Your task to perform on an android device: Open accessibility settings Image 0: 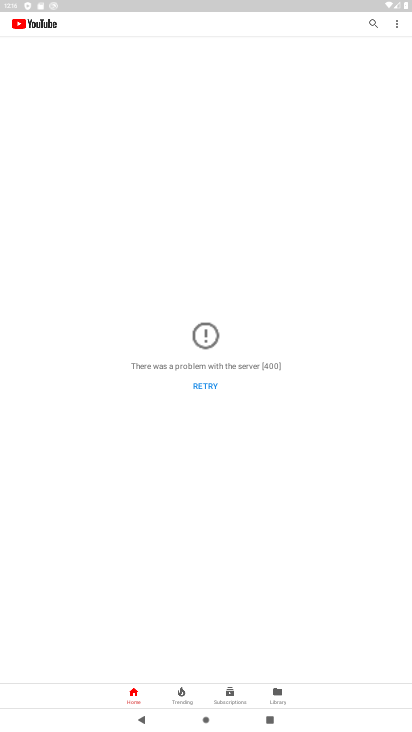
Step 0: drag from (233, 650) to (399, 617)
Your task to perform on an android device: Open accessibility settings Image 1: 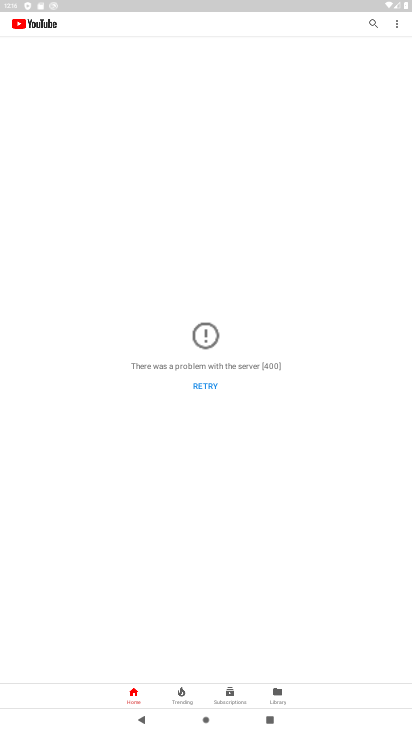
Step 1: press home button
Your task to perform on an android device: Open accessibility settings Image 2: 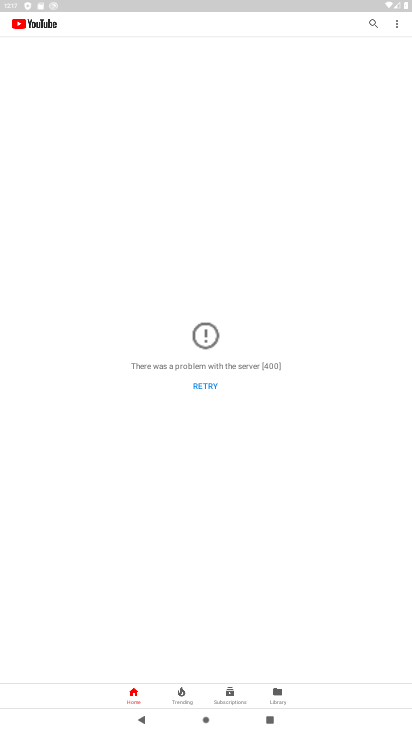
Step 2: drag from (399, 617) to (400, 544)
Your task to perform on an android device: Open accessibility settings Image 3: 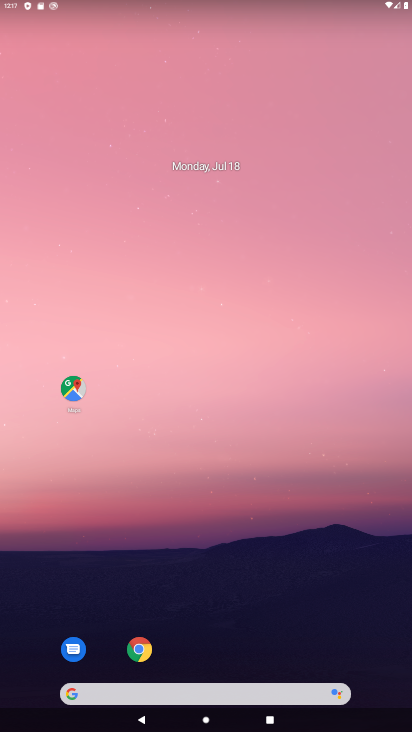
Step 3: drag from (202, 489) to (158, 46)
Your task to perform on an android device: Open accessibility settings Image 4: 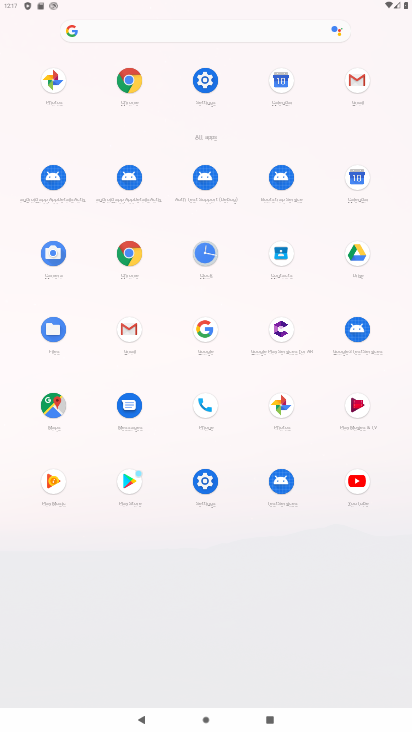
Step 4: click (200, 90)
Your task to perform on an android device: Open accessibility settings Image 5: 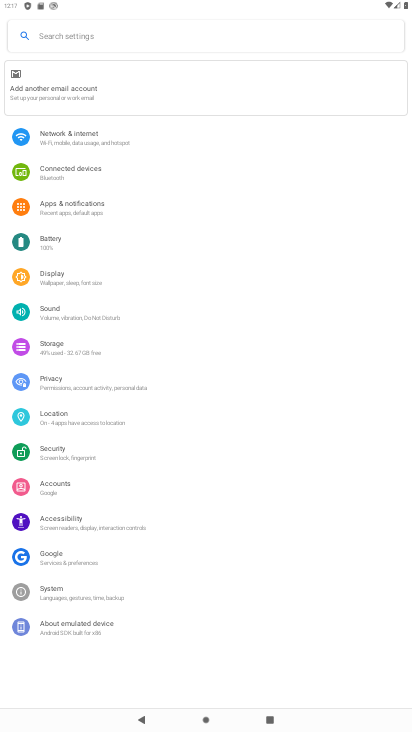
Step 5: click (58, 527)
Your task to perform on an android device: Open accessibility settings Image 6: 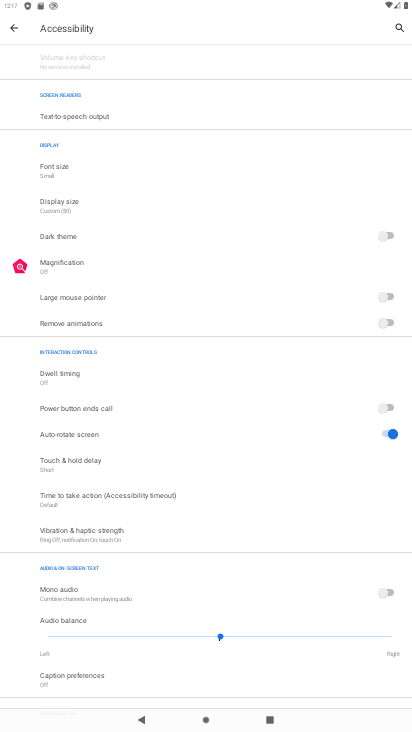
Step 6: task complete